Your task to perform on an android device: Search for "amazon basics triple a" on ebay.com, select the first entry, and add it to the cart. Image 0: 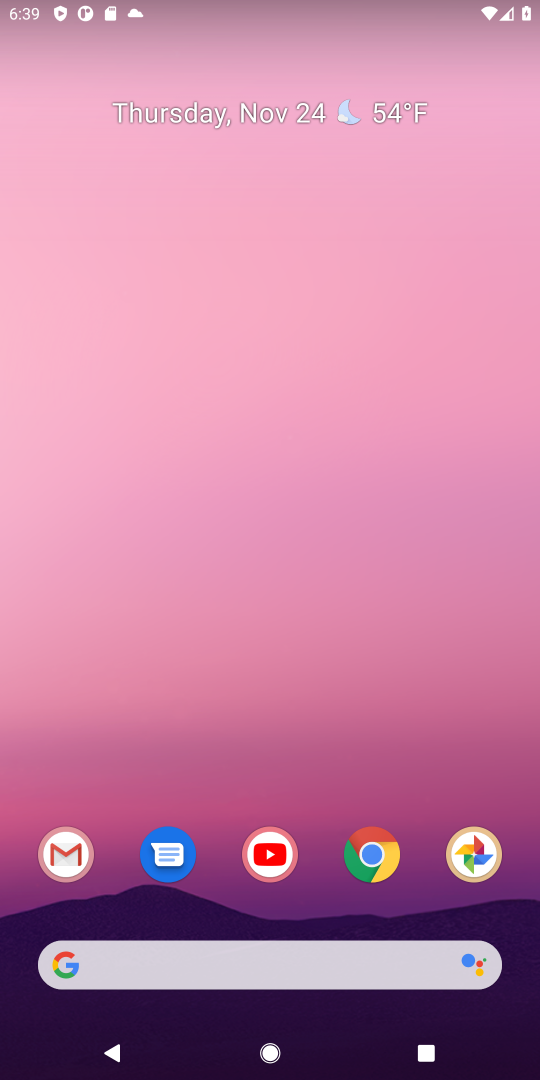
Step 0: click (369, 848)
Your task to perform on an android device: Search for "amazon basics triple a" on ebay.com, select the first entry, and add it to the cart. Image 1: 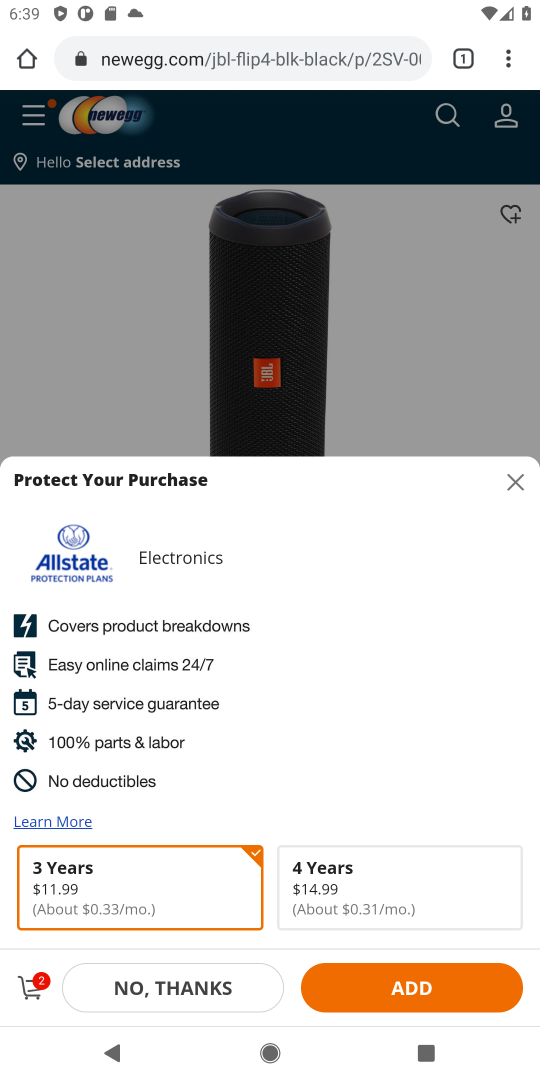
Step 1: click (223, 59)
Your task to perform on an android device: Search for "amazon basics triple a" on ebay.com, select the first entry, and add it to the cart. Image 2: 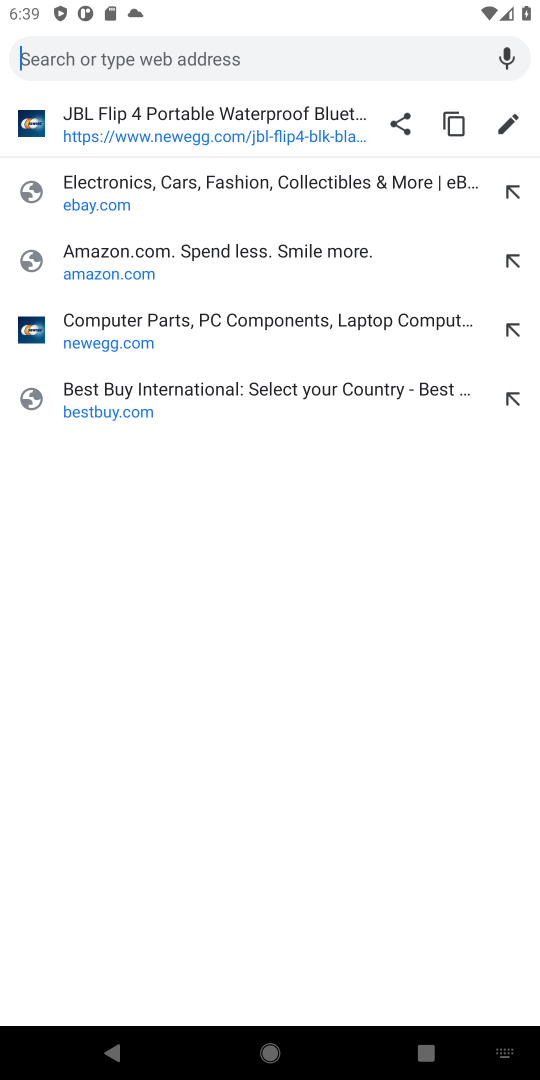
Step 2: click (96, 200)
Your task to perform on an android device: Search for "amazon basics triple a" on ebay.com, select the first entry, and add it to the cart. Image 3: 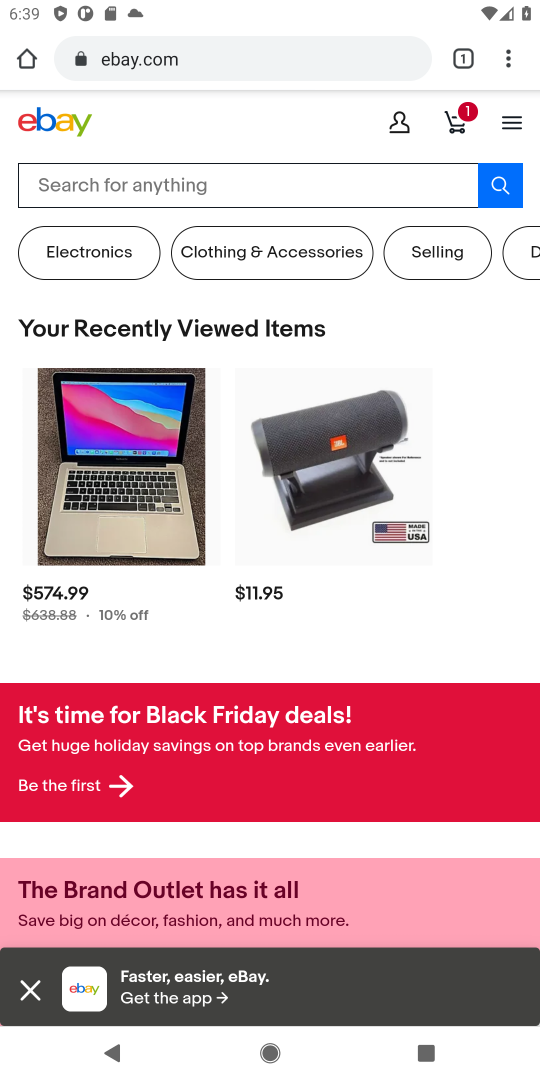
Step 3: click (129, 194)
Your task to perform on an android device: Search for "amazon basics triple a" on ebay.com, select the first entry, and add it to the cart. Image 4: 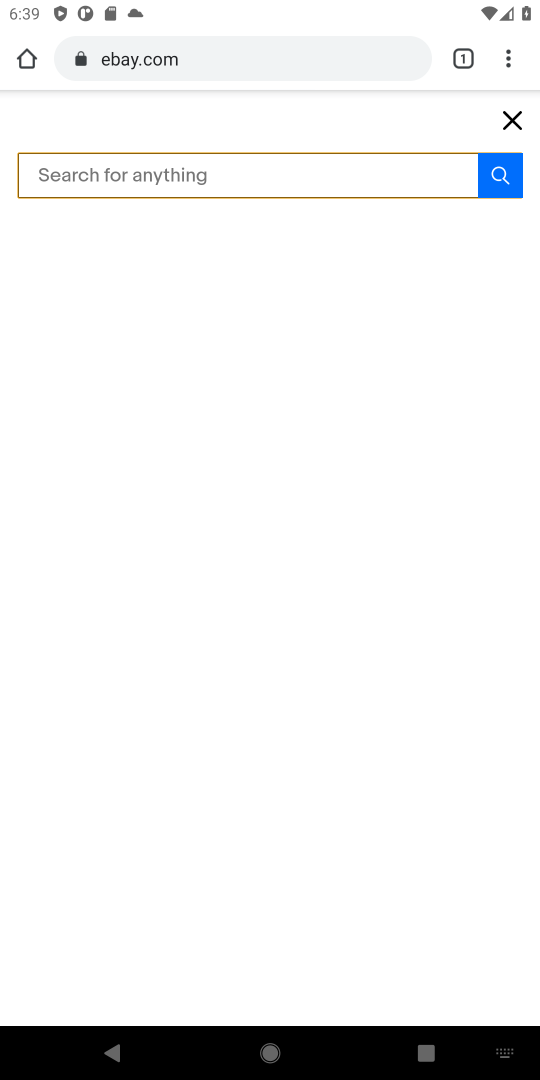
Step 4: type "amazon basics triple a"
Your task to perform on an android device: Search for "amazon basics triple a" on ebay.com, select the first entry, and add it to the cart. Image 5: 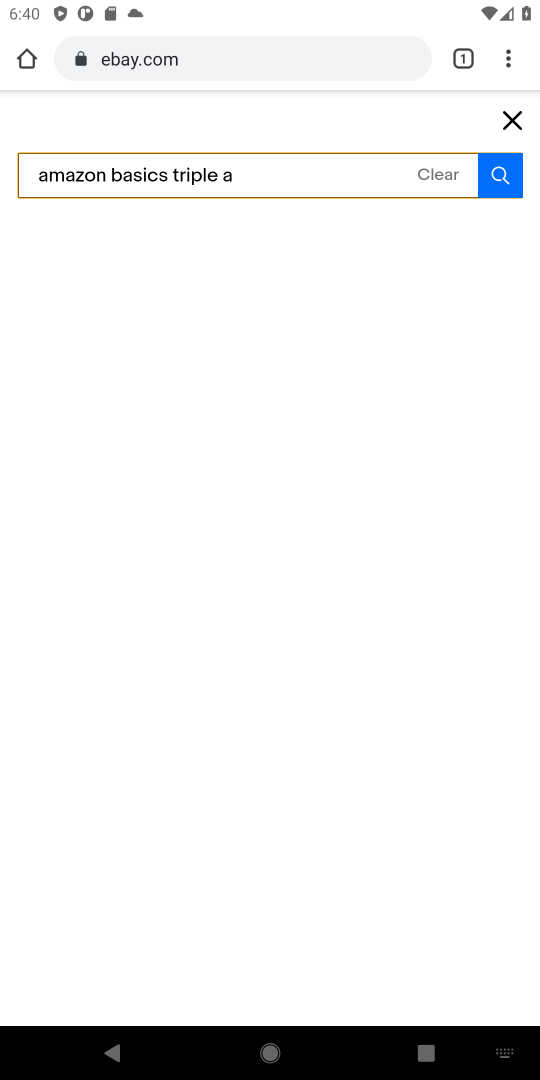
Step 5: click (502, 174)
Your task to perform on an android device: Search for "amazon basics triple a" on ebay.com, select the first entry, and add it to the cart. Image 6: 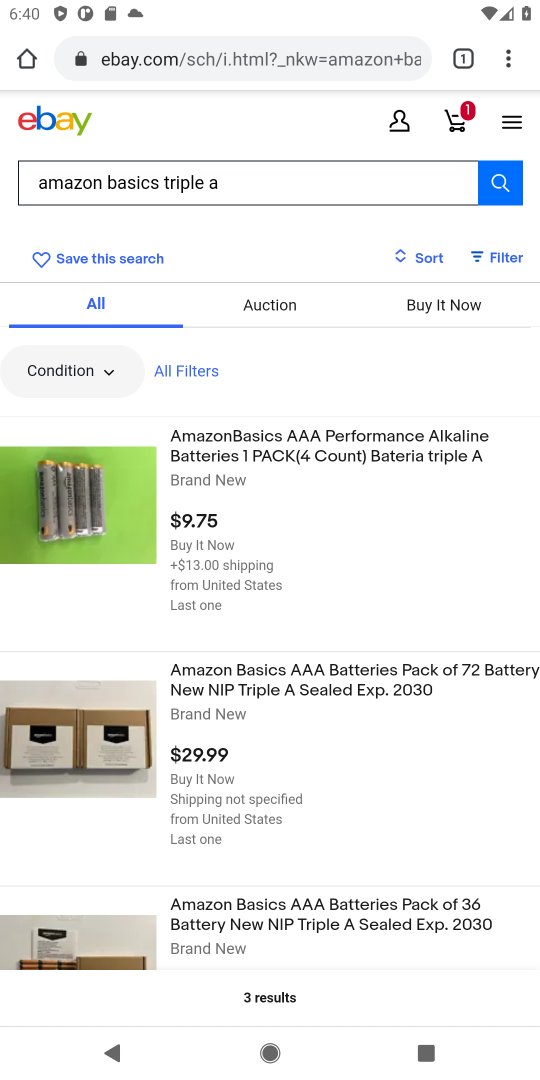
Step 6: click (87, 527)
Your task to perform on an android device: Search for "amazon basics triple a" on ebay.com, select the first entry, and add it to the cart. Image 7: 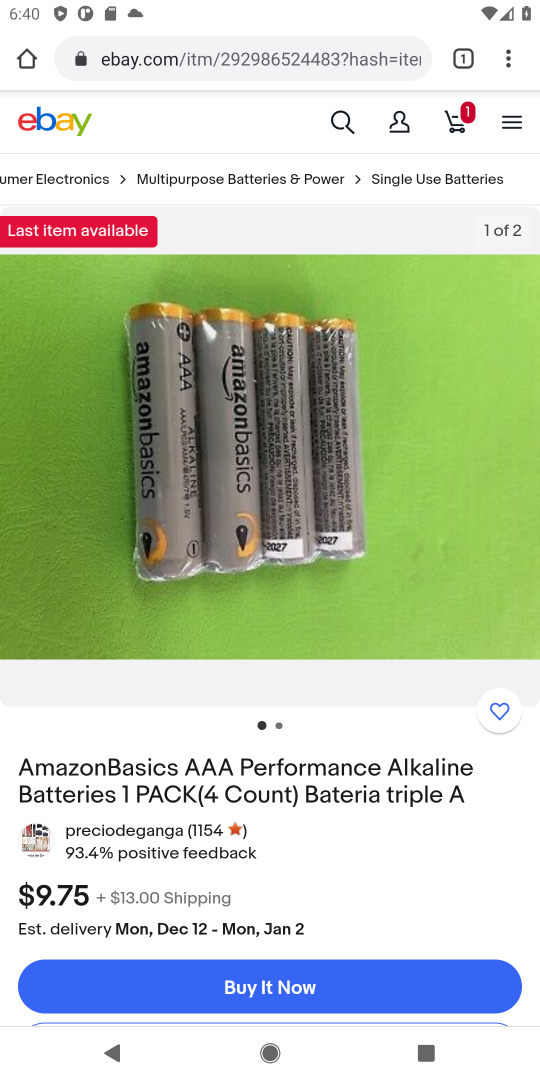
Step 7: drag from (199, 699) to (183, 296)
Your task to perform on an android device: Search for "amazon basics triple a" on ebay.com, select the first entry, and add it to the cart. Image 8: 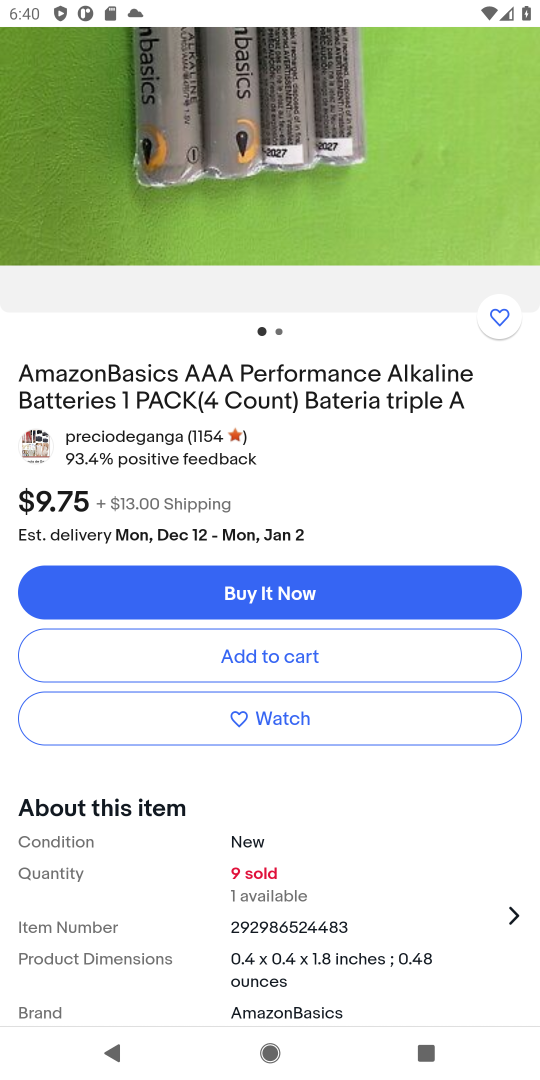
Step 8: click (238, 655)
Your task to perform on an android device: Search for "amazon basics triple a" on ebay.com, select the first entry, and add it to the cart. Image 9: 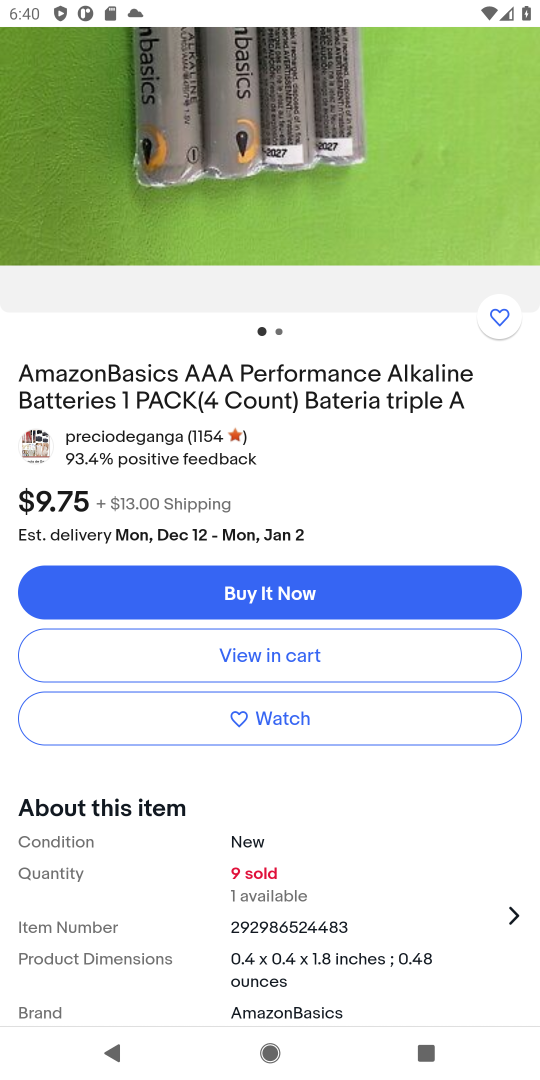
Step 9: task complete